Your task to perform on an android device: Open Maps and search for coffee Image 0: 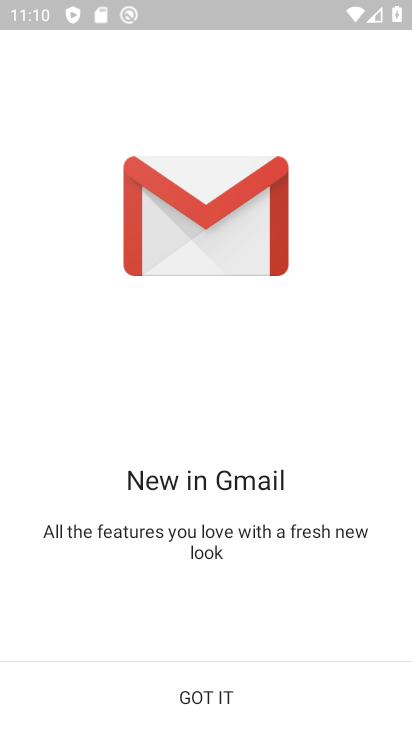
Step 0: press home button
Your task to perform on an android device: Open Maps and search for coffee Image 1: 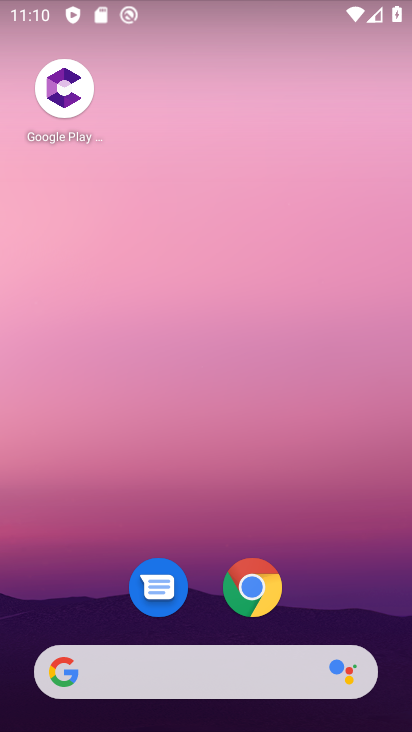
Step 1: drag from (319, 616) to (191, 83)
Your task to perform on an android device: Open Maps and search for coffee Image 2: 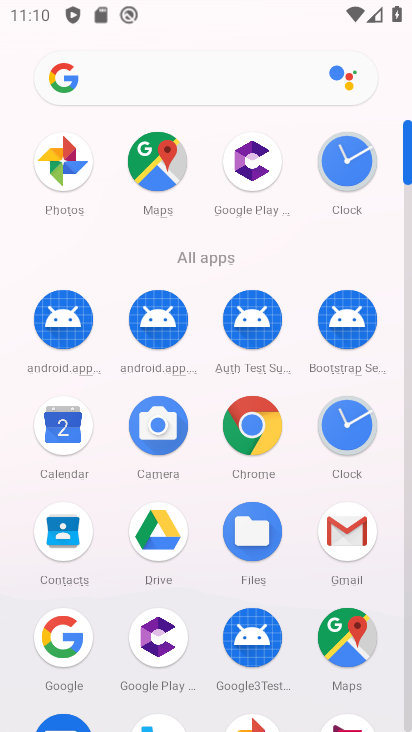
Step 2: click (356, 648)
Your task to perform on an android device: Open Maps and search for coffee Image 3: 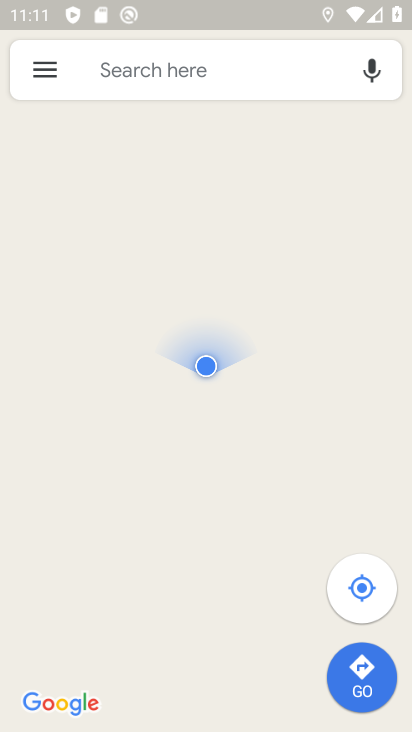
Step 3: click (161, 80)
Your task to perform on an android device: Open Maps and search for coffee Image 4: 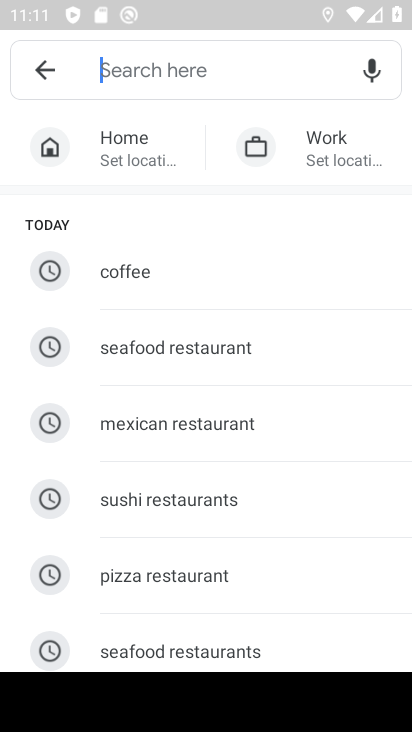
Step 4: click (135, 264)
Your task to perform on an android device: Open Maps and search for coffee Image 5: 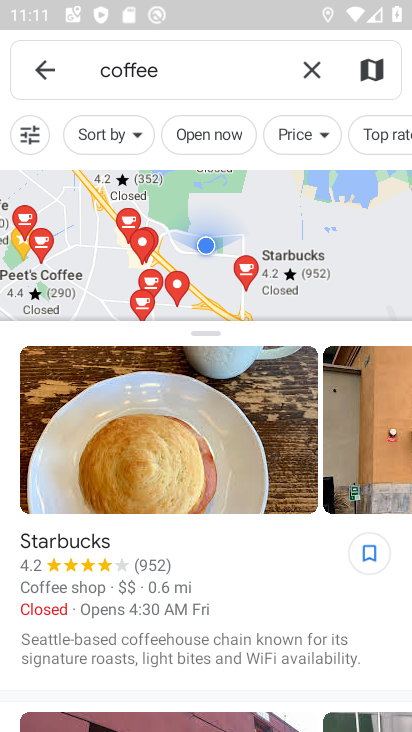
Step 5: task complete